Your task to perform on an android device: show emergency info Image 0: 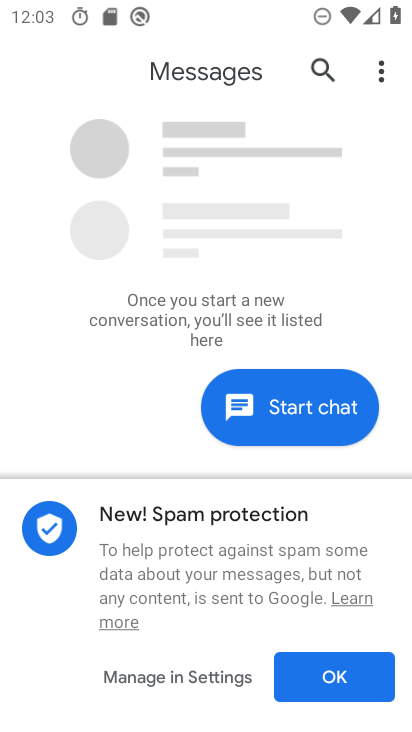
Step 0: press back button
Your task to perform on an android device: show emergency info Image 1: 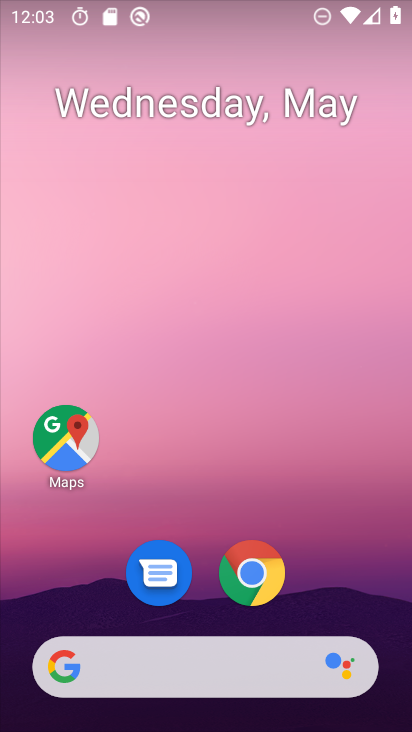
Step 1: drag from (335, 621) to (321, 63)
Your task to perform on an android device: show emergency info Image 2: 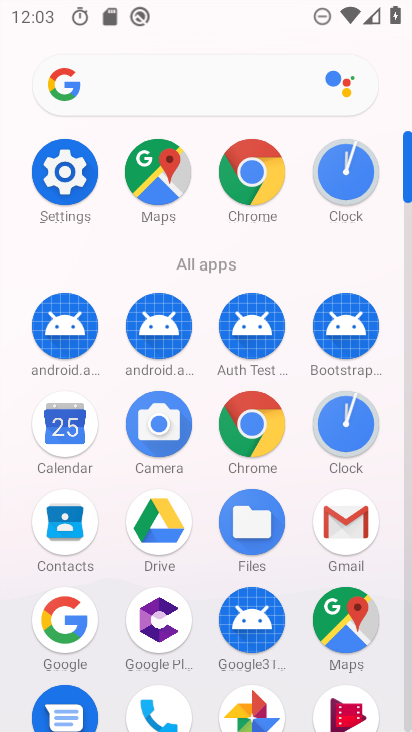
Step 2: drag from (5, 485) to (26, 241)
Your task to perform on an android device: show emergency info Image 3: 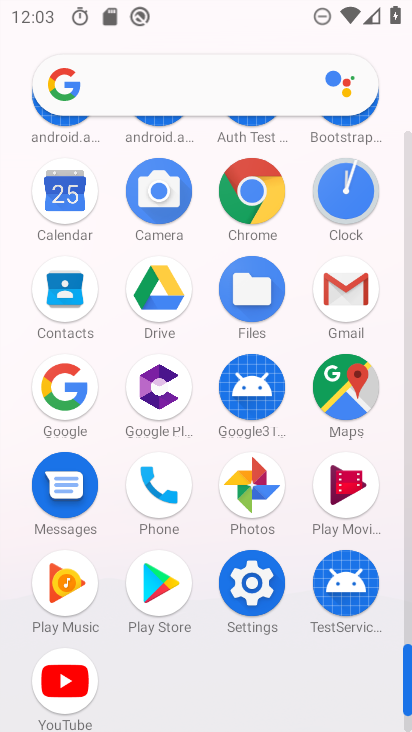
Step 3: click (249, 578)
Your task to perform on an android device: show emergency info Image 4: 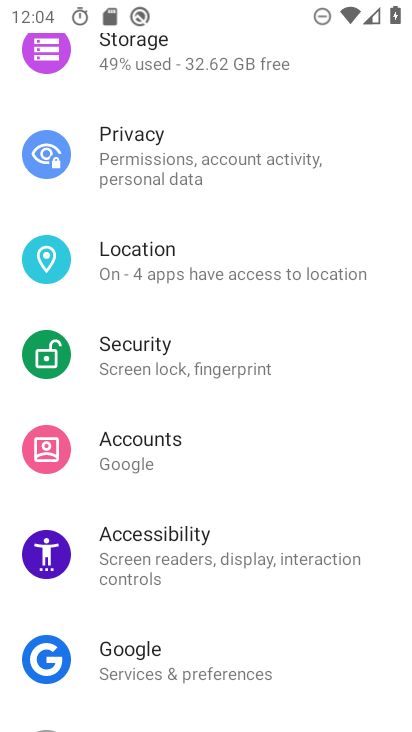
Step 4: drag from (250, 587) to (275, 112)
Your task to perform on an android device: show emergency info Image 5: 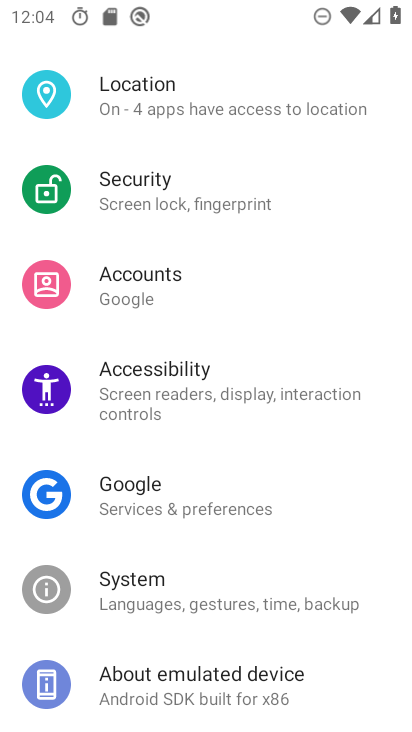
Step 5: drag from (262, 218) to (263, 642)
Your task to perform on an android device: show emergency info Image 6: 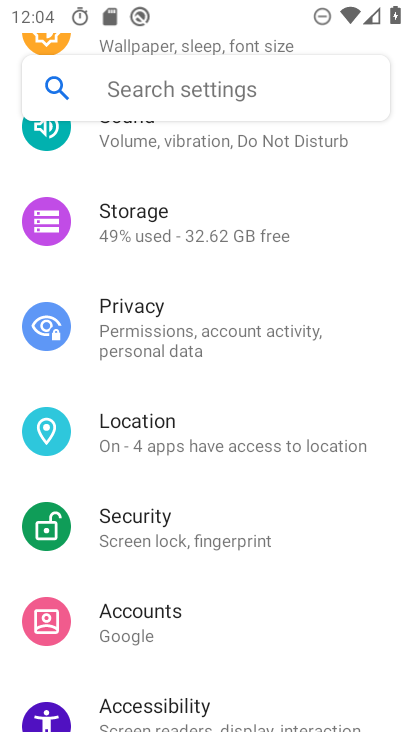
Step 6: drag from (262, 202) to (265, 615)
Your task to perform on an android device: show emergency info Image 7: 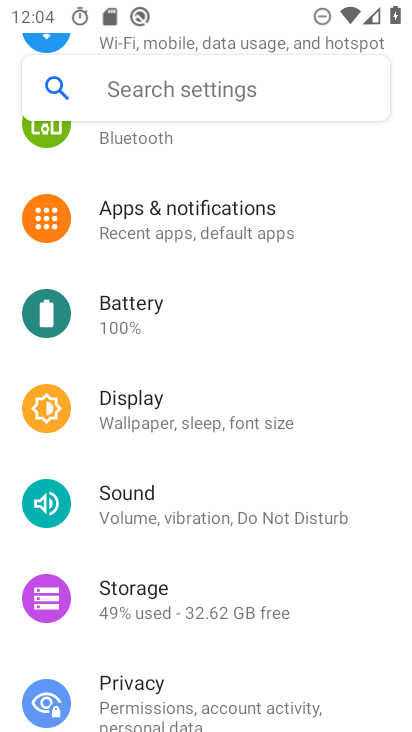
Step 7: drag from (270, 244) to (281, 648)
Your task to perform on an android device: show emergency info Image 8: 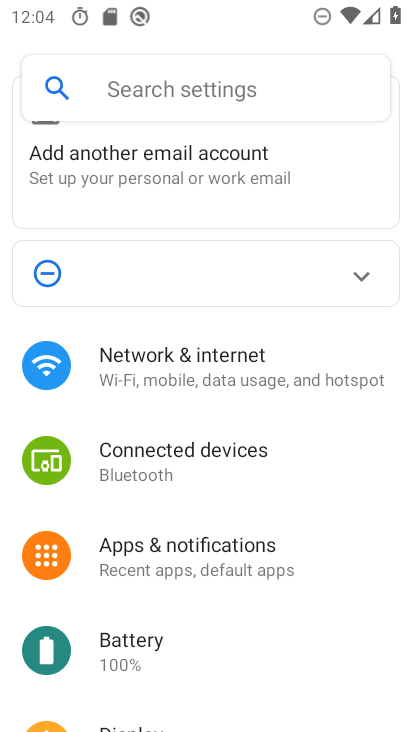
Step 8: drag from (281, 639) to (336, 76)
Your task to perform on an android device: show emergency info Image 9: 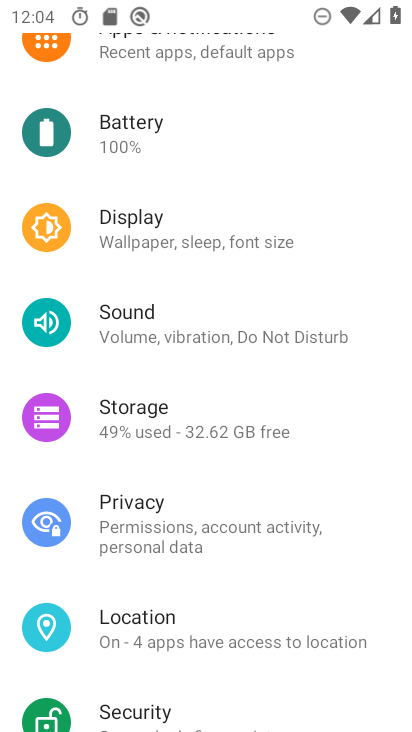
Step 9: drag from (299, 537) to (324, 147)
Your task to perform on an android device: show emergency info Image 10: 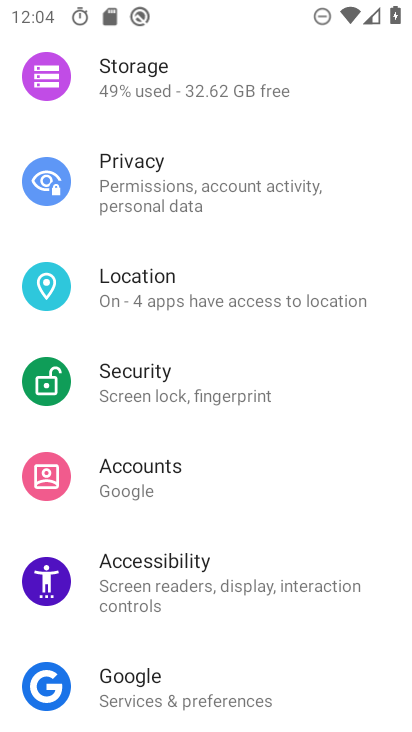
Step 10: drag from (302, 568) to (347, 63)
Your task to perform on an android device: show emergency info Image 11: 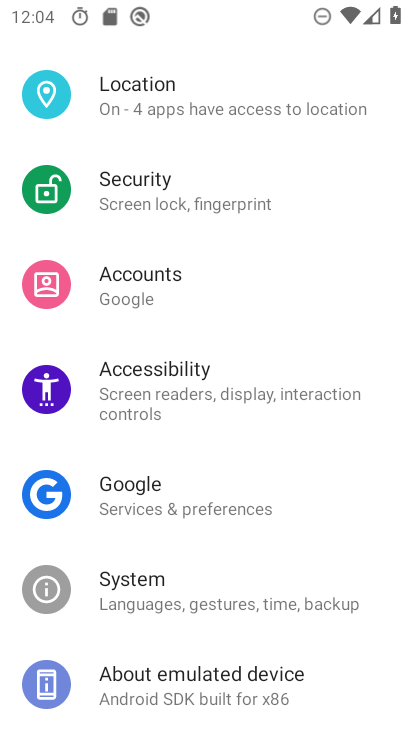
Step 11: click (218, 678)
Your task to perform on an android device: show emergency info Image 12: 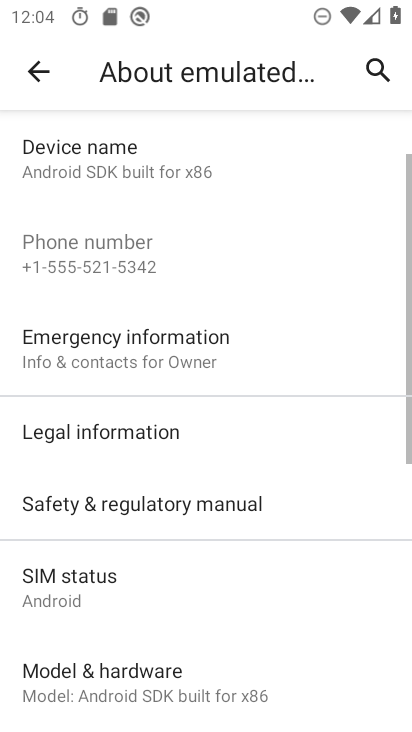
Step 12: task complete